Your task to perform on an android device: open app "Adobe Express: Graphic Design" (install if not already installed) Image 0: 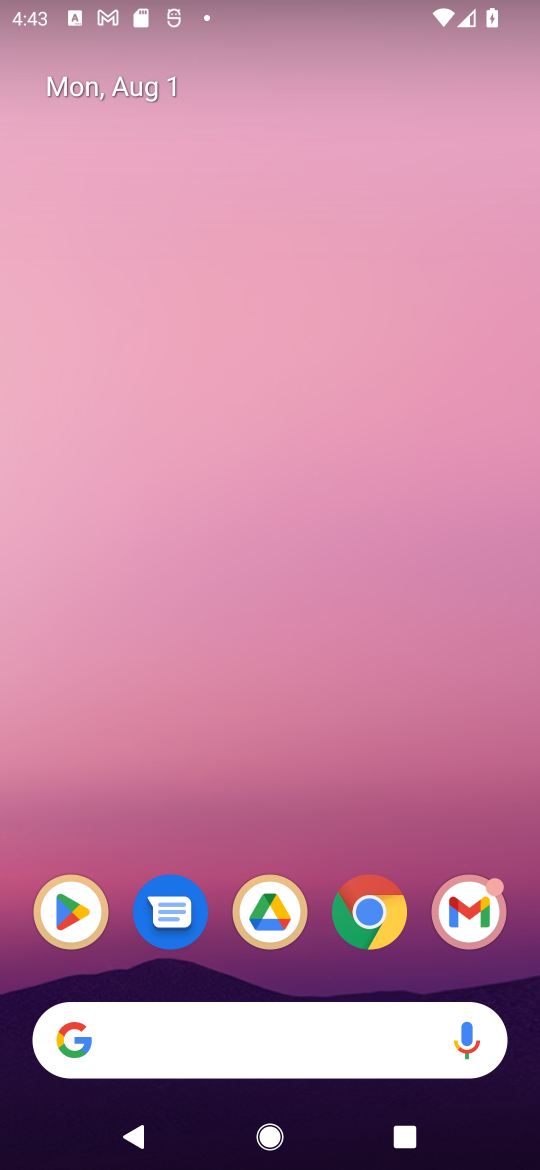
Step 0: click (75, 917)
Your task to perform on an android device: open app "Adobe Express: Graphic Design" (install if not already installed) Image 1: 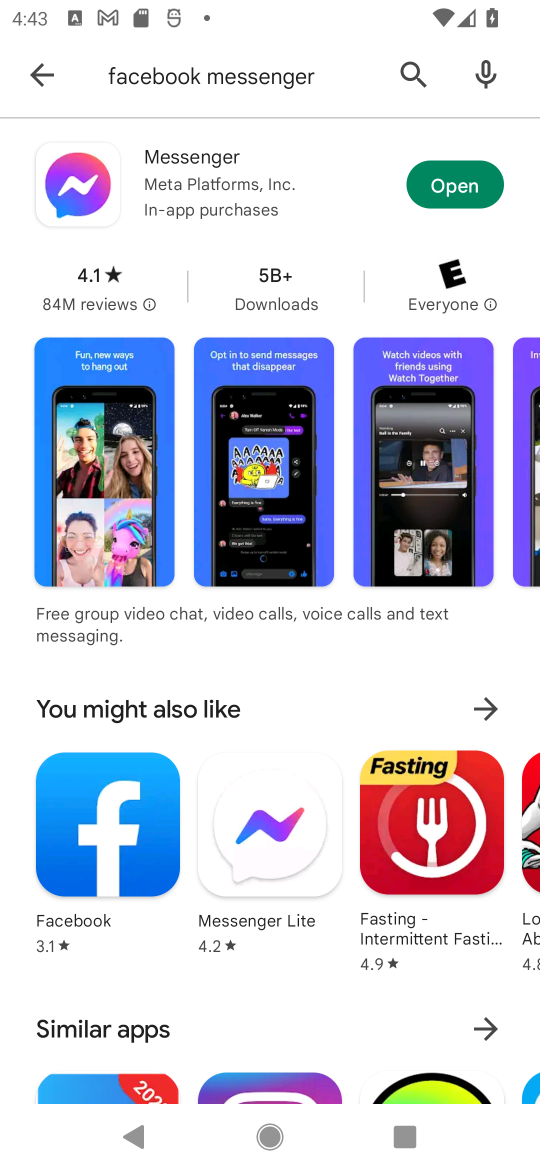
Step 1: click (418, 73)
Your task to perform on an android device: open app "Adobe Express: Graphic Design" (install if not already installed) Image 2: 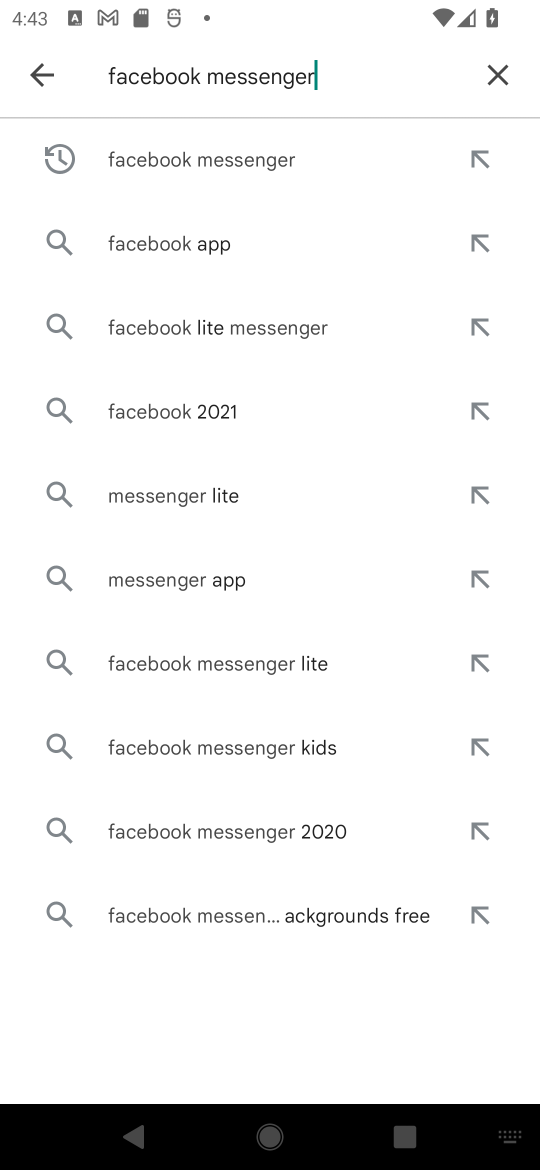
Step 2: click (480, 82)
Your task to perform on an android device: open app "Adobe Express: Graphic Design" (install if not already installed) Image 3: 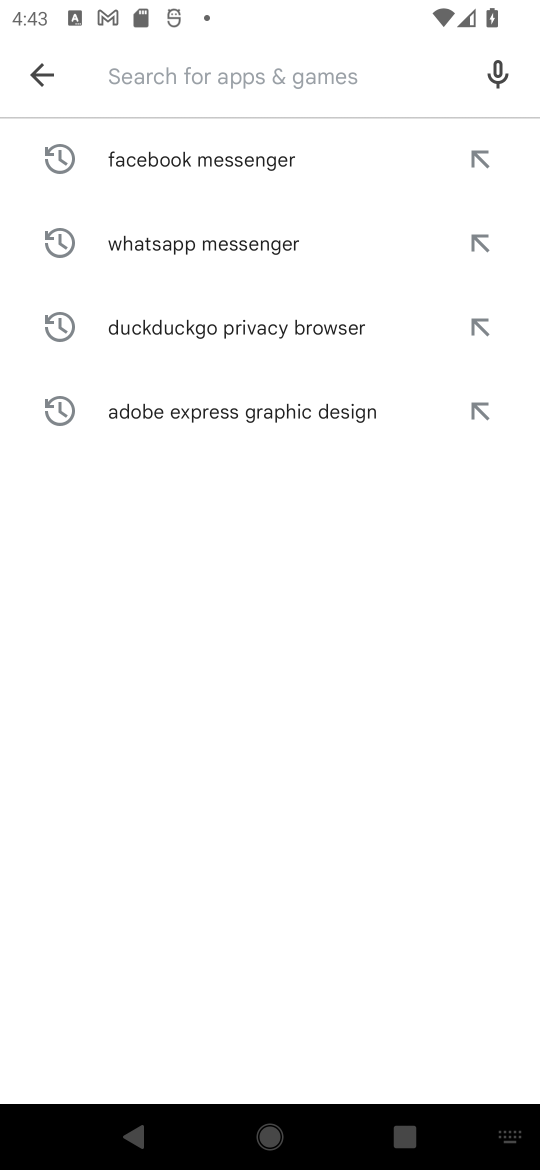
Step 3: type "Adobe Express: Graphic Design"
Your task to perform on an android device: open app "Adobe Express: Graphic Design" (install if not already installed) Image 4: 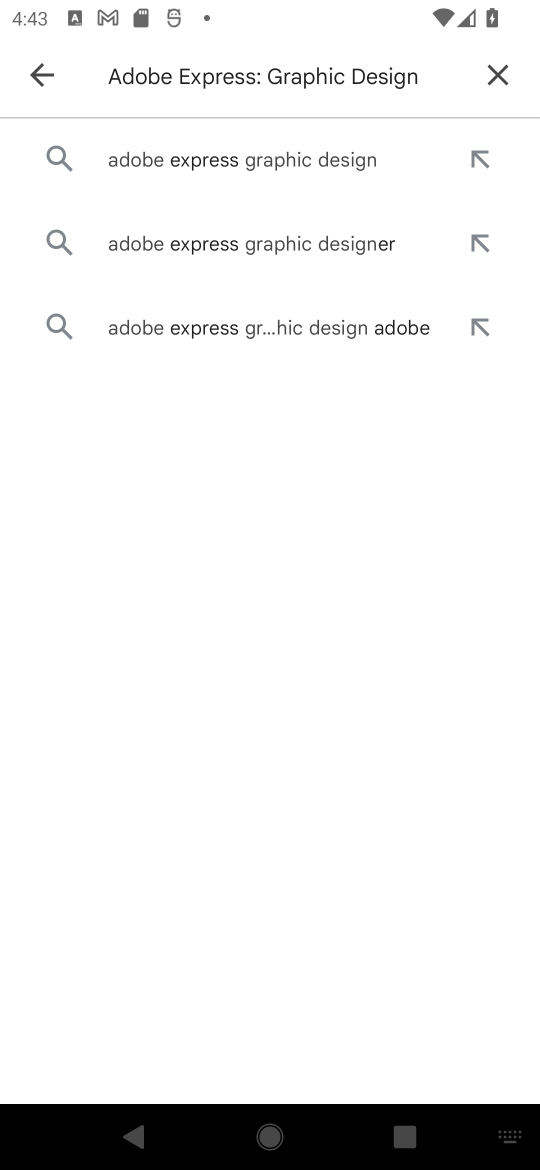
Step 4: click (226, 155)
Your task to perform on an android device: open app "Adobe Express: Graphic Design" (install if not already installed) Image 5: 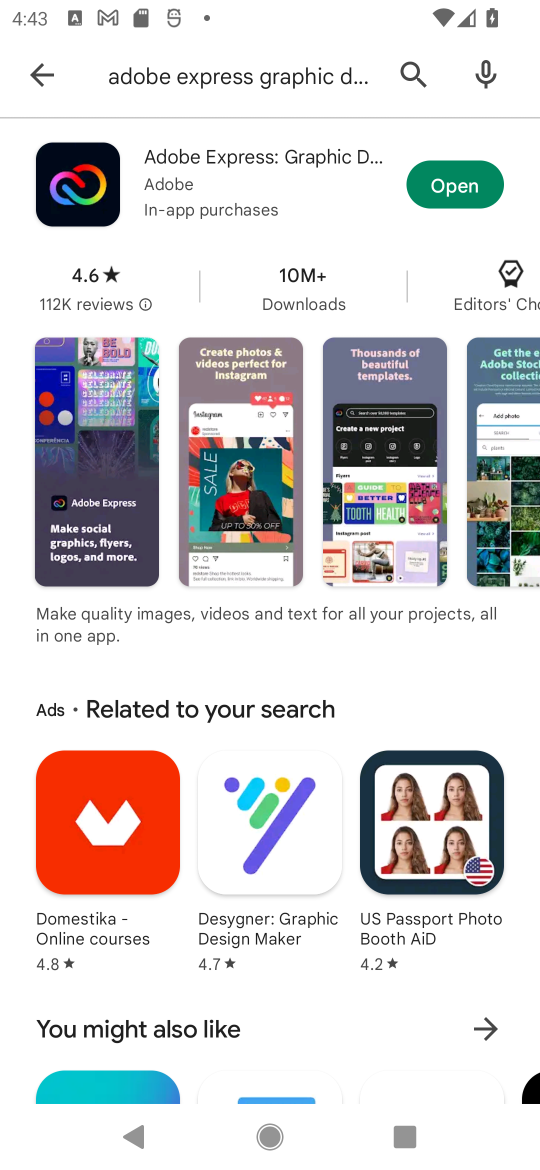
Step 5: click (419, 188)
Your task to perform on an android device: open app "Adobe Express: Graphic Design" (install if not already installed) Image 6: 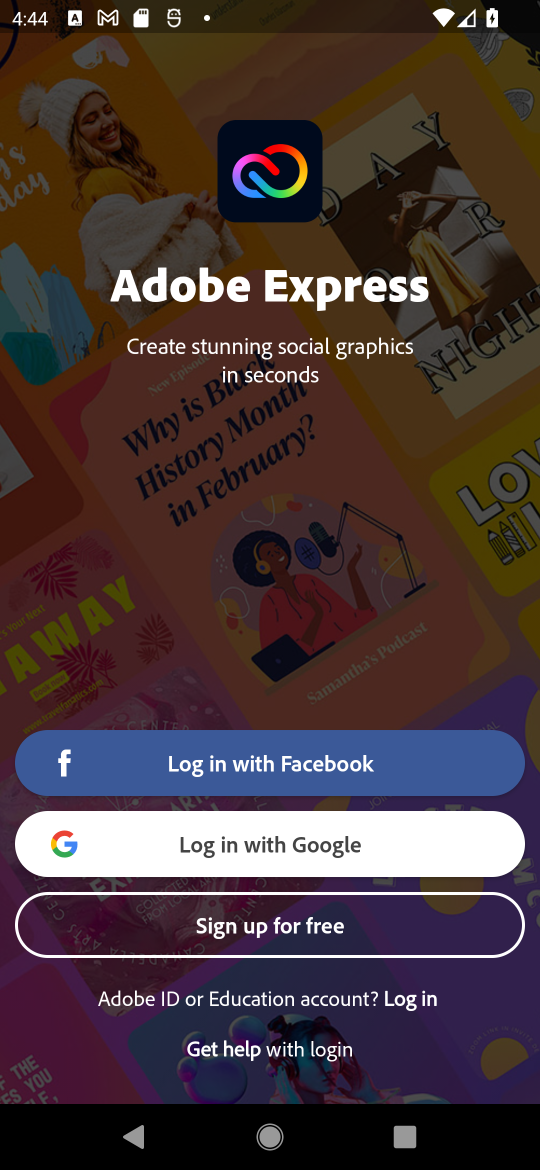
Step 6: press home button
Your task to perform on an android device: open app "Adobe Express: Graphic Design" (install if not already installed) Image 7: 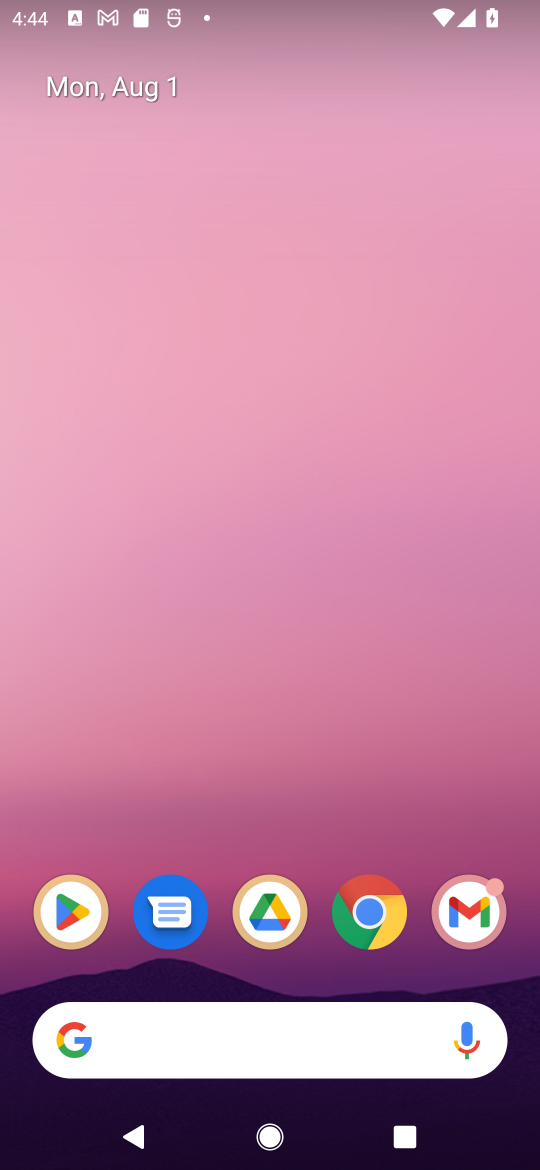
Step 7: drag from (252, 850) to (279, 8)
Your task to perform on an android device: open app "Adobe Express: Graphic Design" (install if not already installed) Image 8: 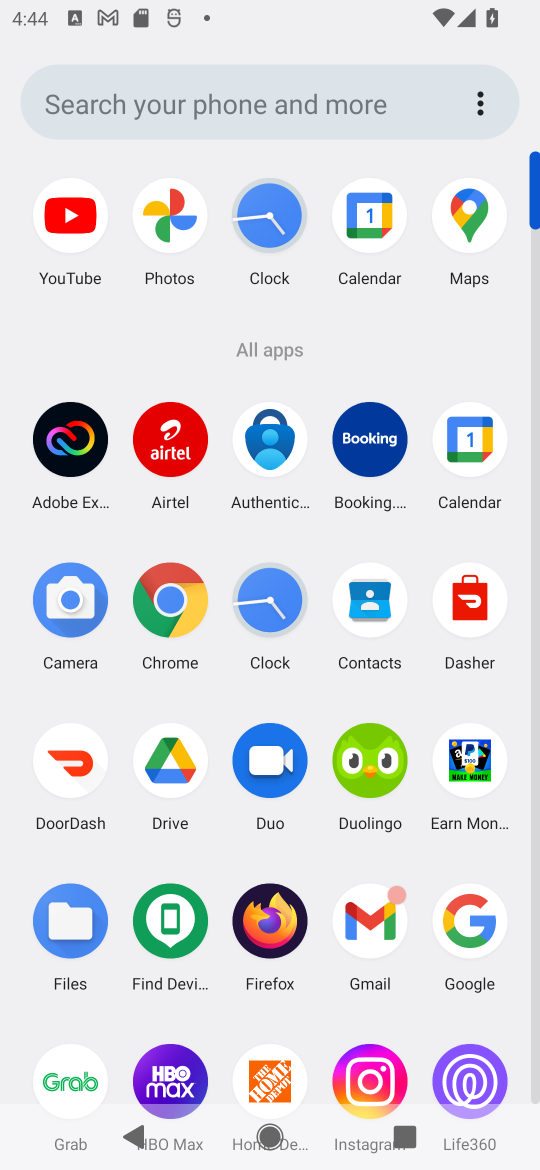
Step 8: click (76, 455)
Your task to perform on an android device: open app "Adobe Express: Graphic Design" (install if not already installed) Image 9: 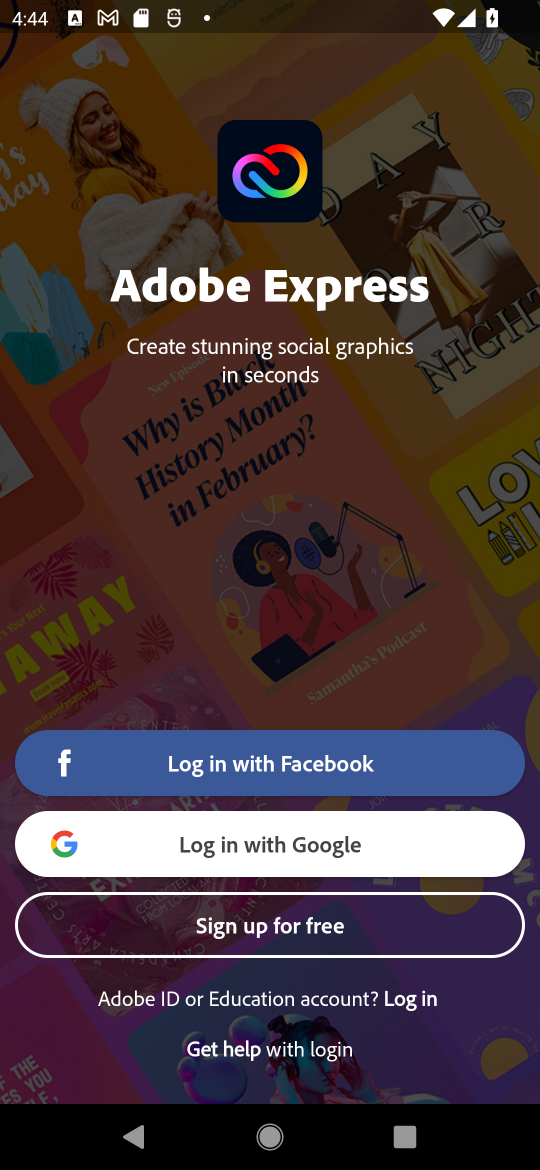
Step 9: task complete